Your task to perform on an android device: What's the weather? Image 0: 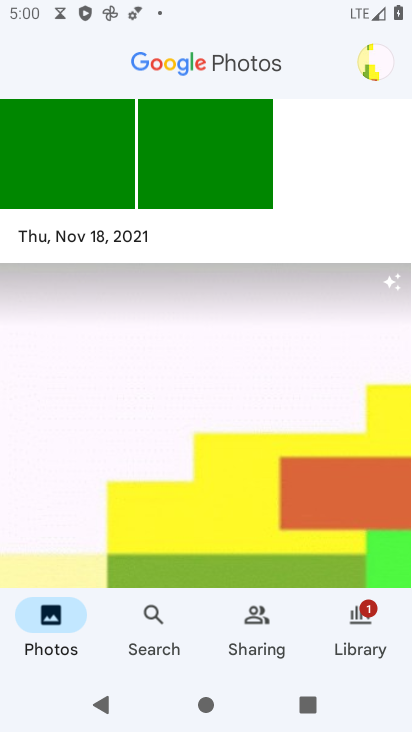
Step 0: press back button
Your task to perform on an android device: What's the weather? Image 1: 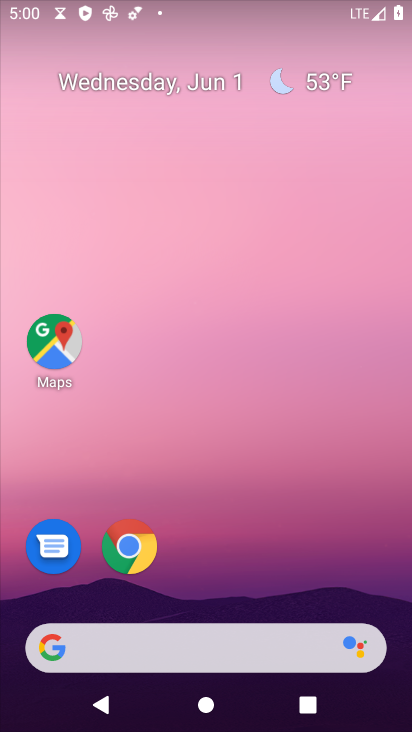
Step 1: drag from (279, 562) to (225, 87)
Your task to perform on an android device: What's the weather? Image 2: 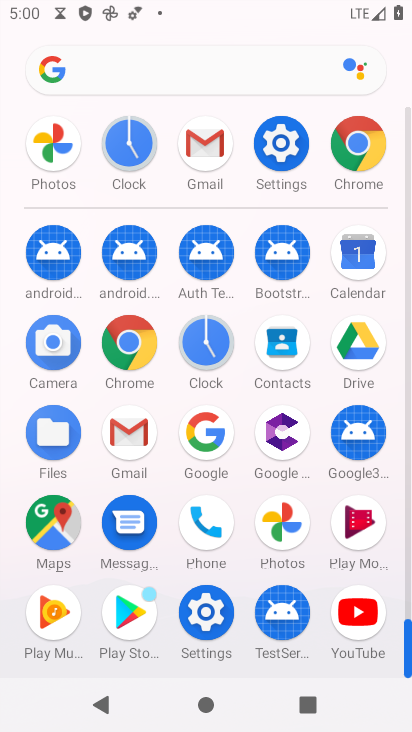
Step 2: drag from (6, 563) to (1, 236)
Your task to perform on an android device: What's the weather? Image 3: 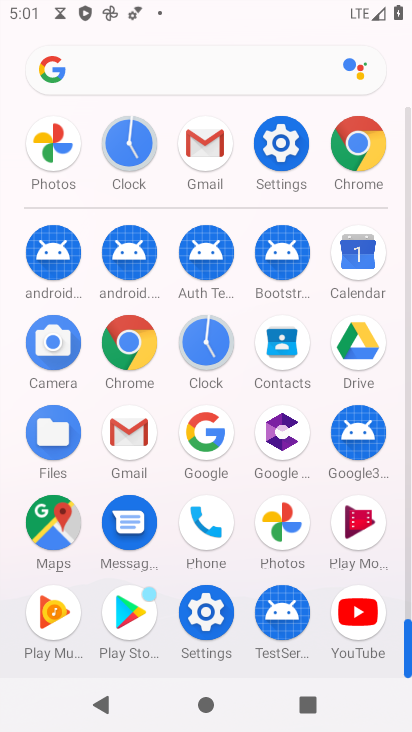
Step 3: click (125, 339)
Your task to perform on an android device: What's the weather? Image 4: 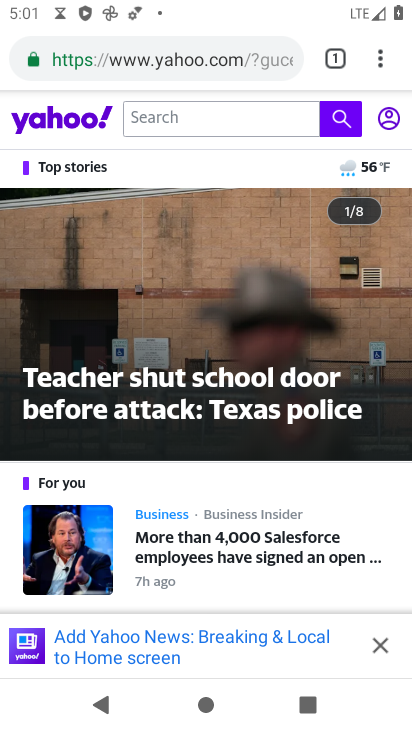
Step 4: click (148, 52)
Your task to perform on an android device: What's the weather? Image 5: 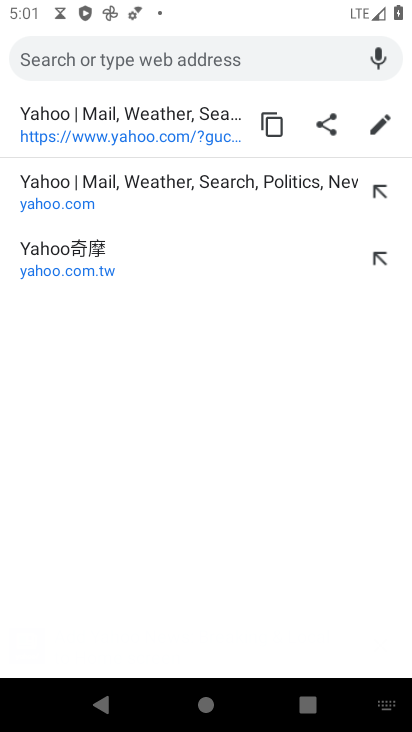
Step 5: type "What's the weather?"
Your task to perform on an android device: What's the weather? Image 6: 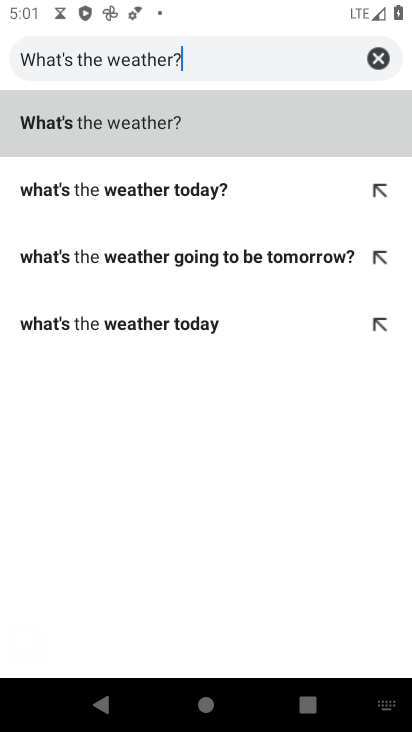
Step 6: type ""
Your task to perform on an android device: What's the weather? Image 7: 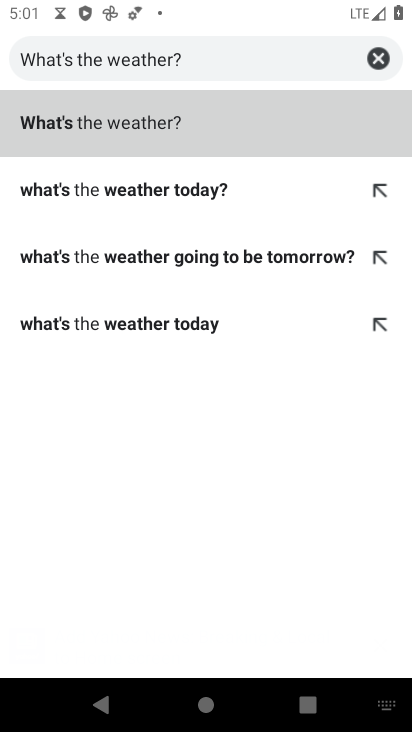
Step 7: click (157, 114)
Your task to perform on an android device: What's the weather? Image 8: 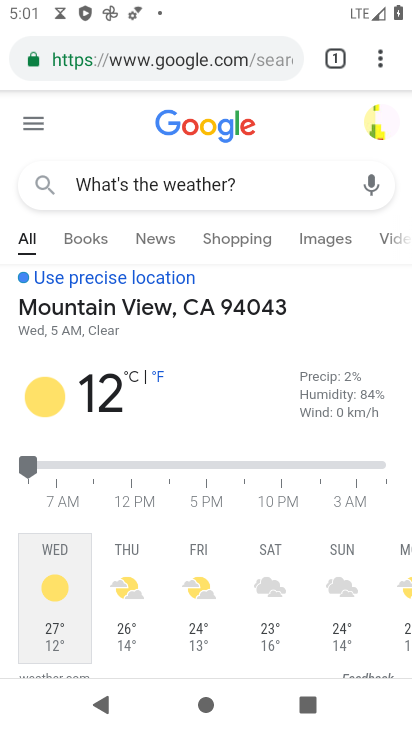
Step 8: task complete